Your task to perform on an android device: What's the weather? Image 0: 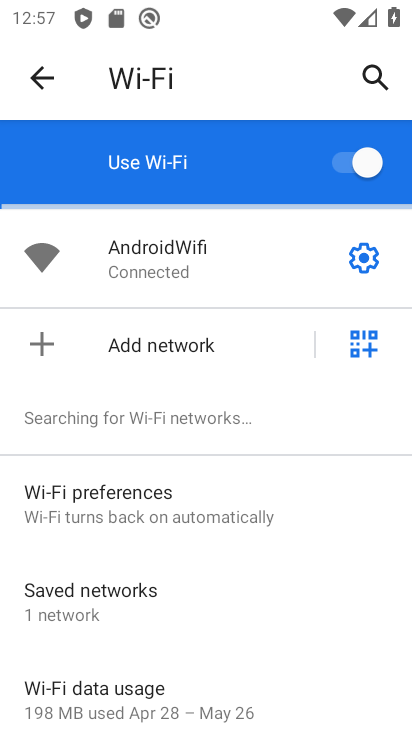
Step 0: press home button
Your task to perform on an android device: What's the weather? Image 1: 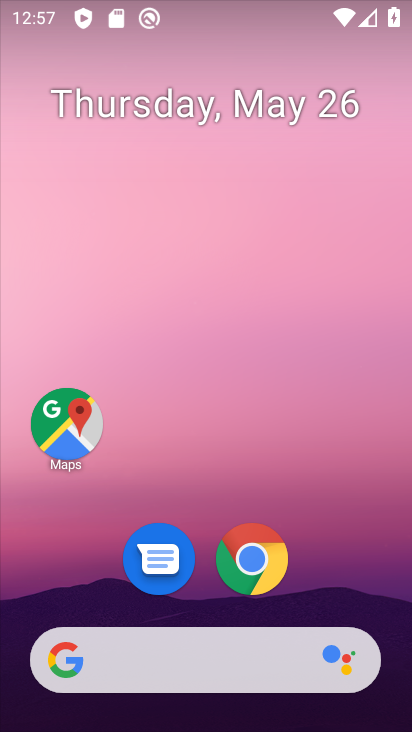
Step 1: click (78, 657)
Your task to perform on an android device: What's the weather? Image 2: 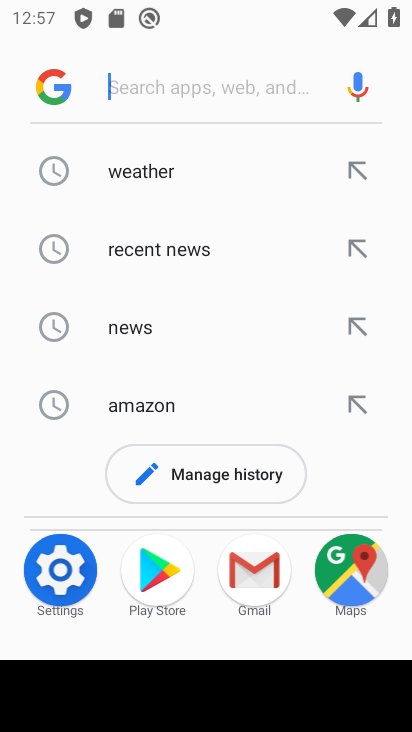
Step 2: click (160, 174)
Your task to perform on an android device: What's the weather? Image 3: 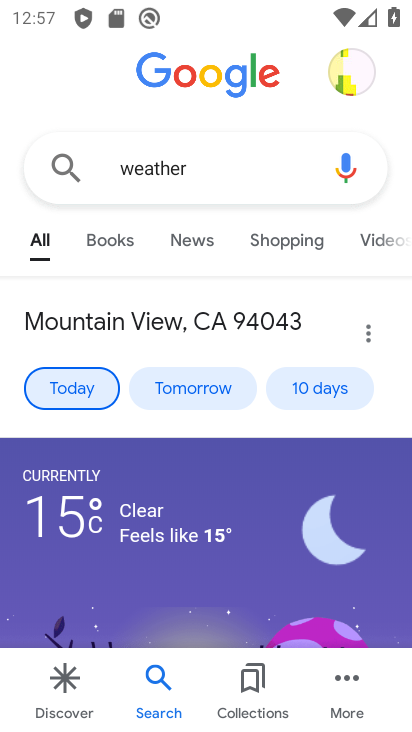
Step 3: task complete